Your task to perform on an android device: Do I have any events today? Image 0: 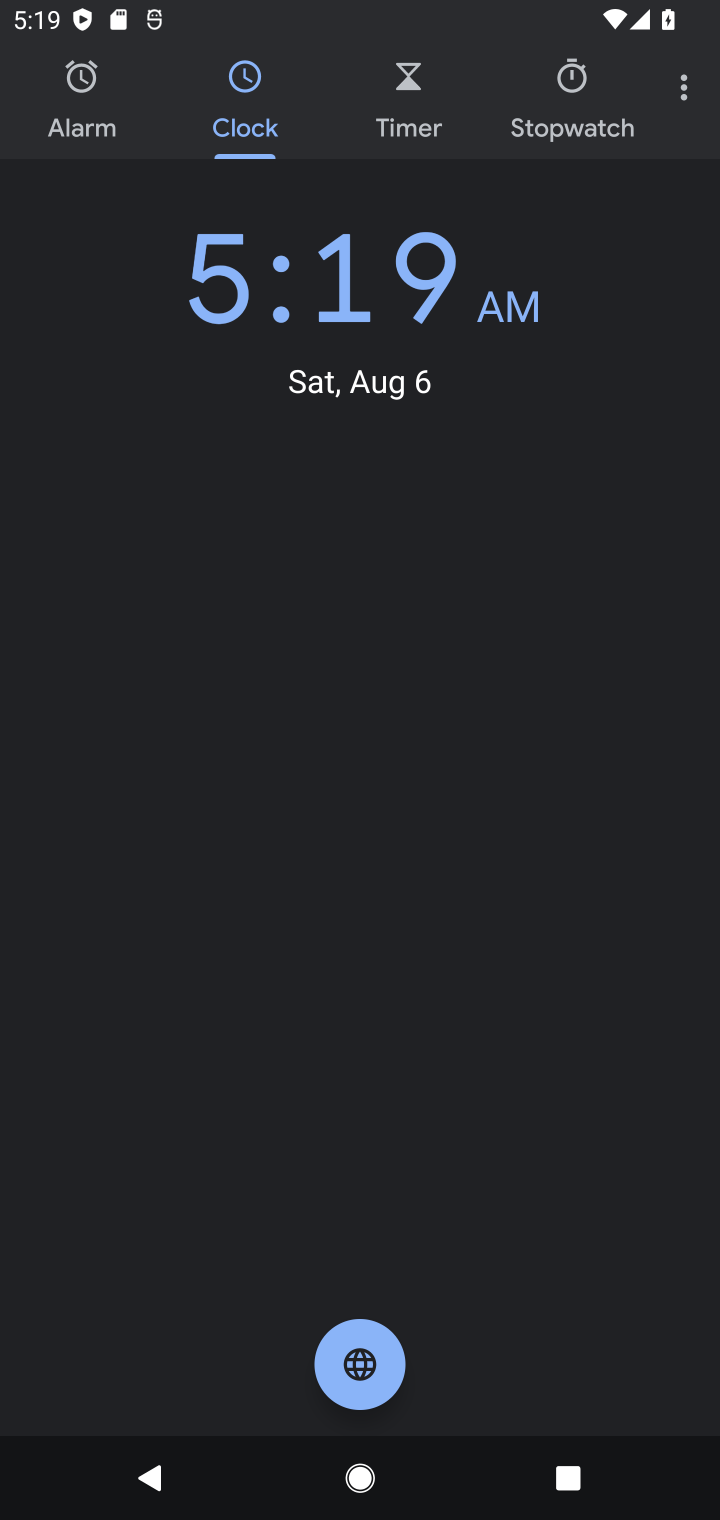
Step 0: press home button
Your task to perform on an android device: Do I have any events today? Image 1: 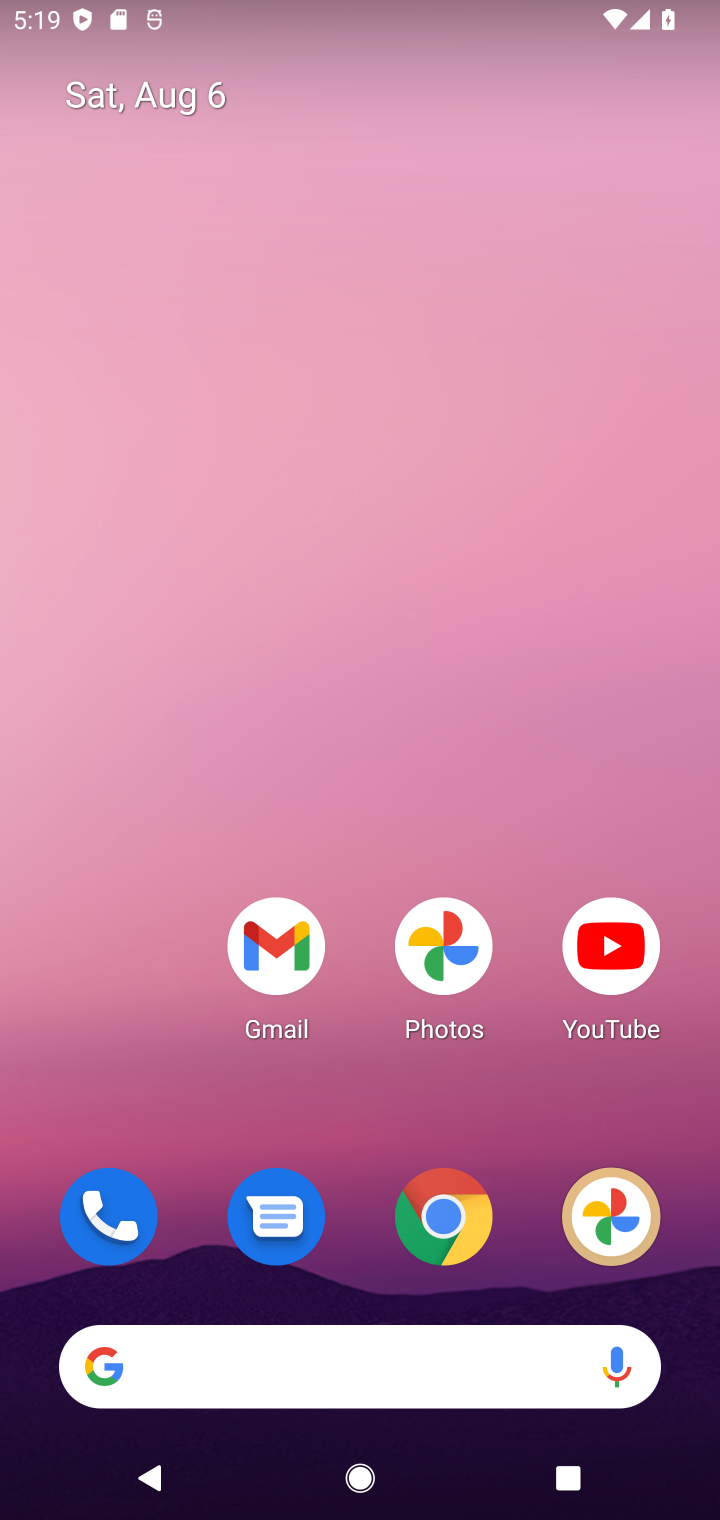
Step 1: drag from (547, 1144) to (524, 276)
Your task to perform on an android device: Do I have any events today? Image 2: 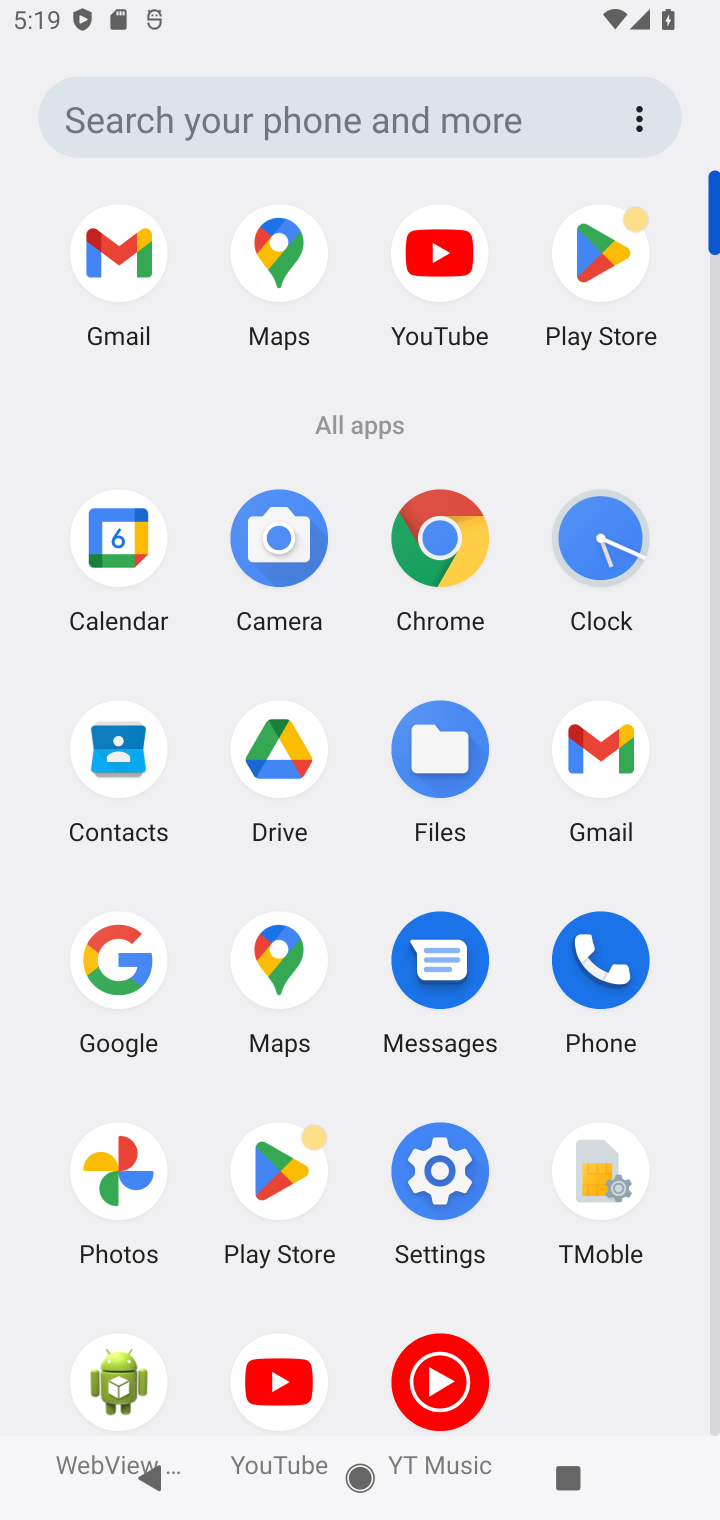
Step 2: click (95, 538)
Your task to perform on an android device: Do I have any events today? Image 3: 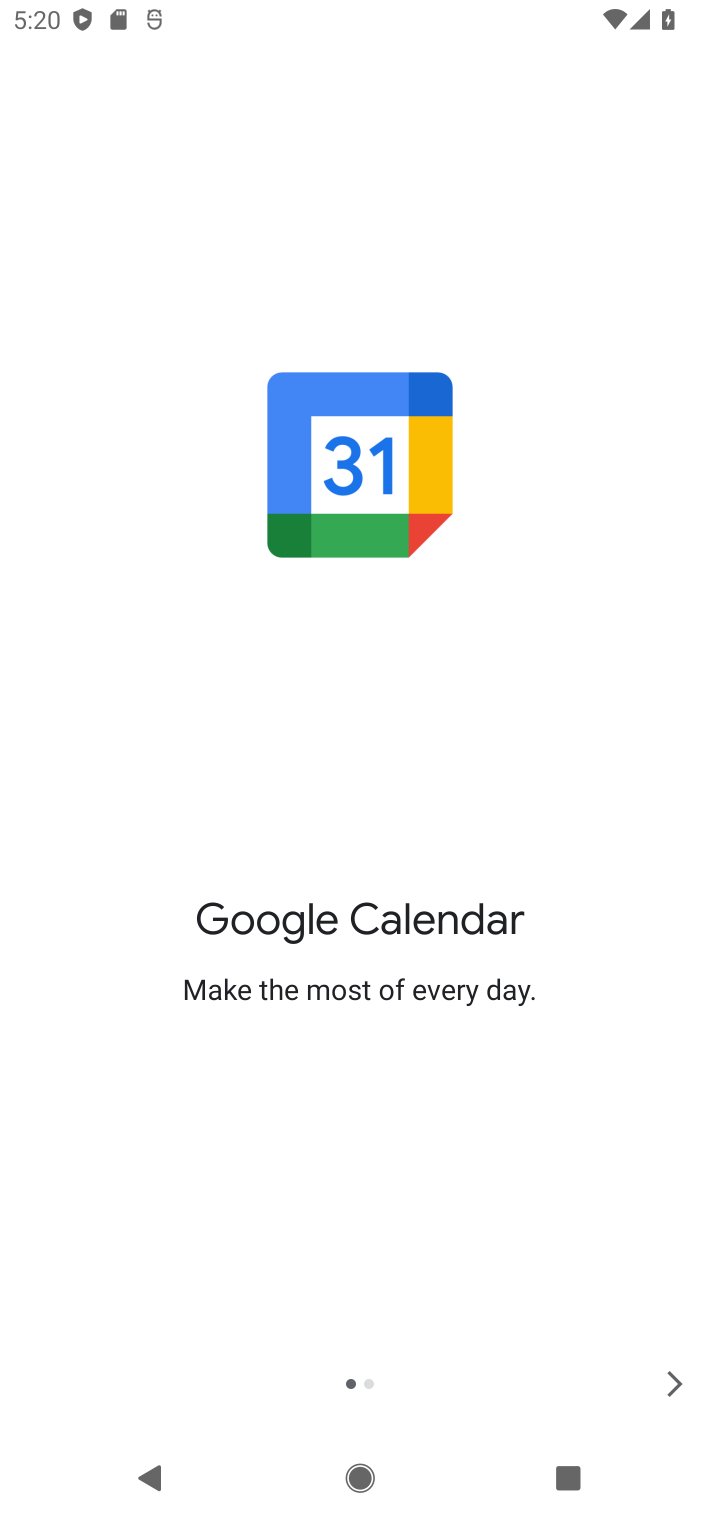
Step 3: click (678, 1367)
Your task to perform on an android device: Do I have any events today? Image 4: 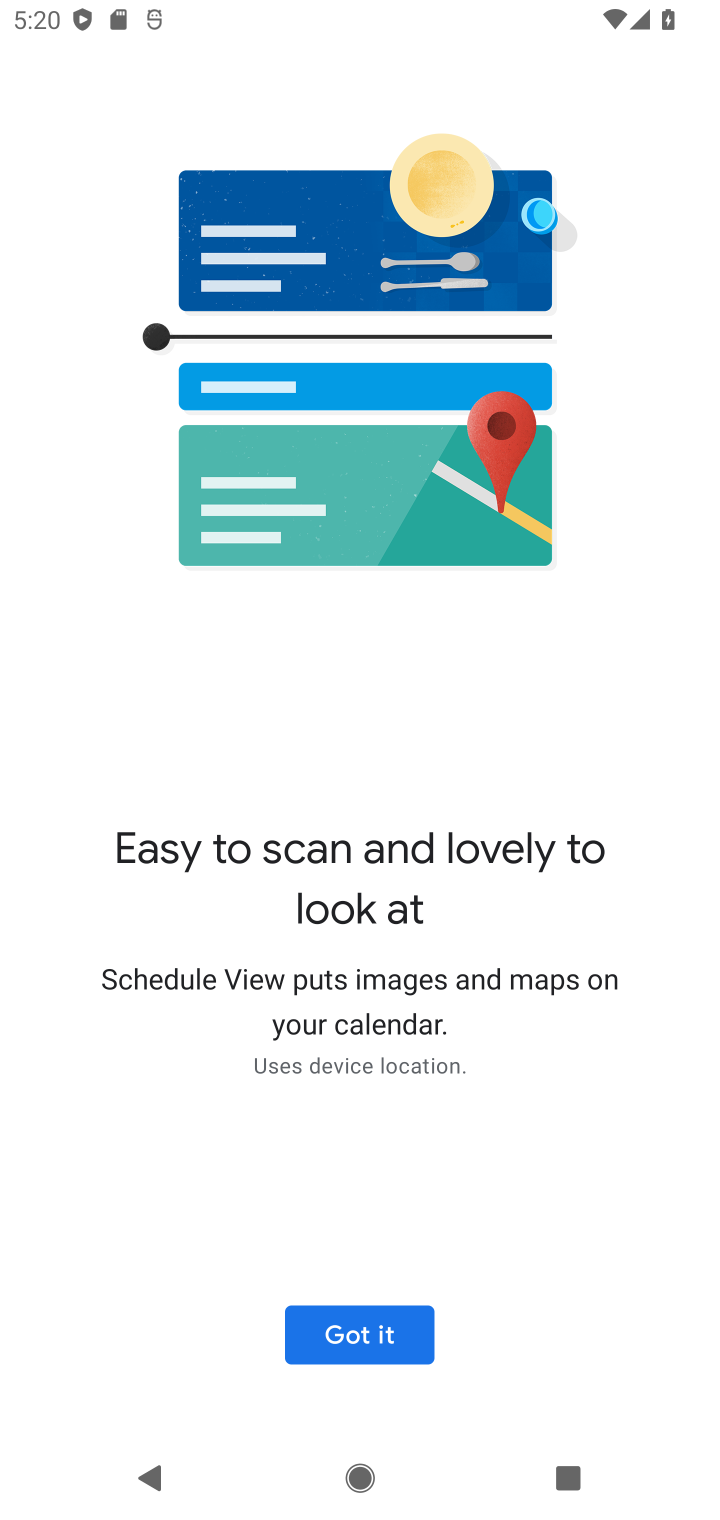
Step 4: click (359, 1343)
Your task to perform on an android device: Do I have any events today? Image 5: 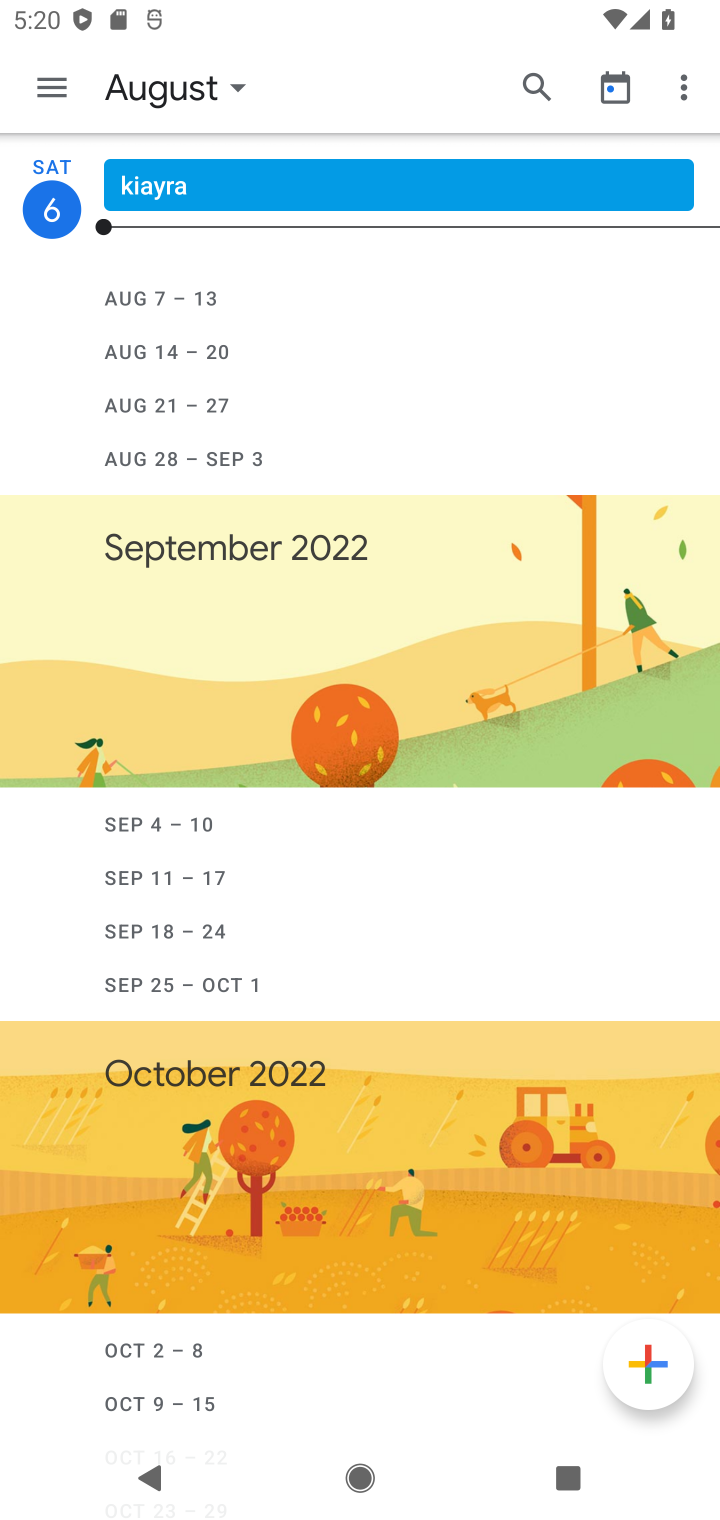
Step 5: task complete